Your task to perform on an android device: Open calendar and show me the second week of next month Image 0: 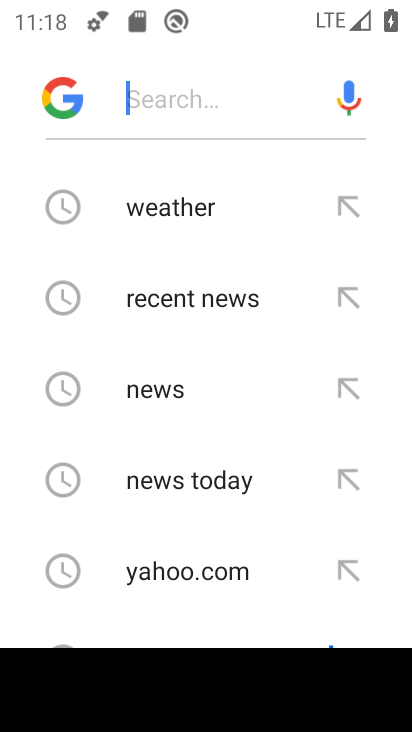
Step 0: press home button
Your task to perform on an android device: Open calendar and show me the second week of next month Image 1: 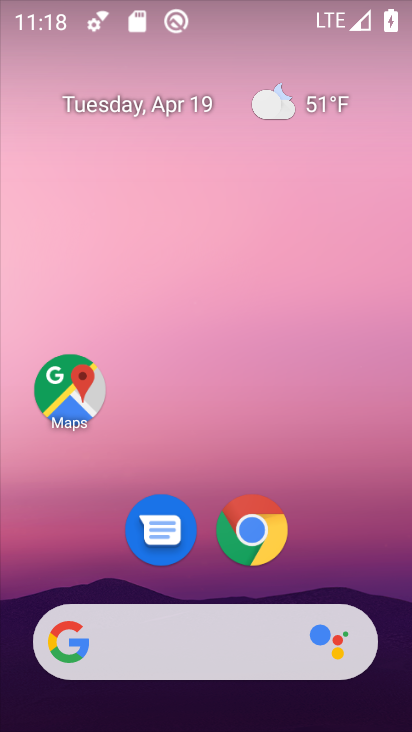
Step 1: drag from (201, 587) to (341, 51)
Your task to perform on an android device: Open calendar and show me the second week of next month Image 2: 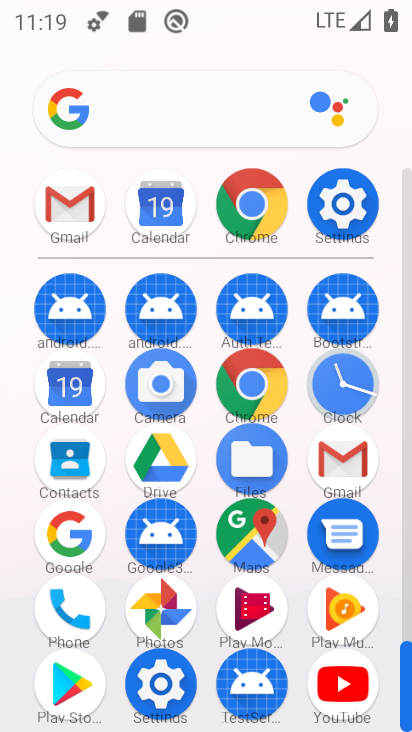
Step 2: click (64, 392)
Your task to perform on an android device: Open calendar and show me the second week of next month Image 3: 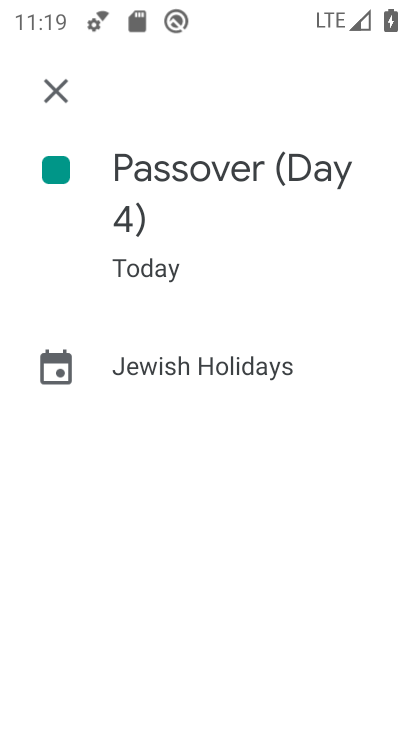
Step 3: click (60, 92)
Your task to perform on an android device: Open calendar and show me the second week of next month Image 4: 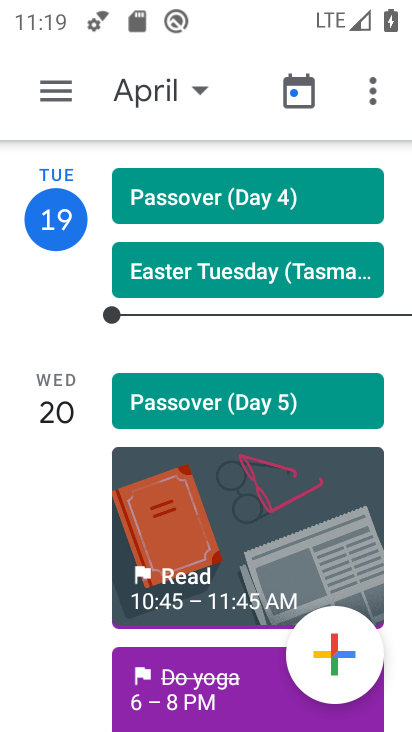
Step 4: click (164, 87)
Your task to perform on an android device: Open calendar and show me the second week of next month Image 5: 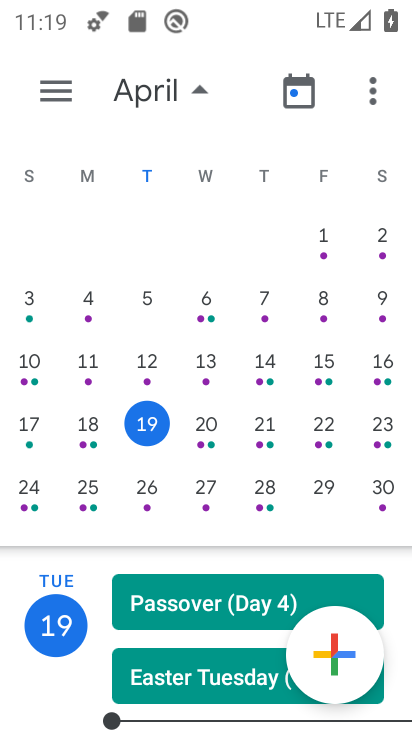
Step 5: drag from (328, 385) to (17, 369)
Your task to perform on an android device: Open calendar and show me the second week of next month Image 6: 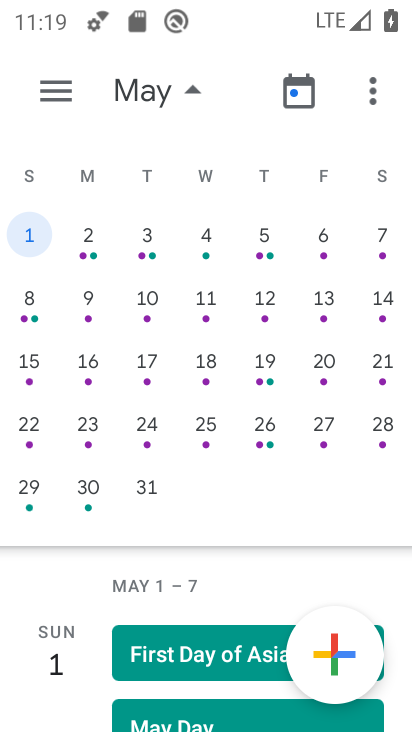
Step 6: click (28, 304)
Your task to perform on an android device: Open calendar and show me the second week of next month Image 7: 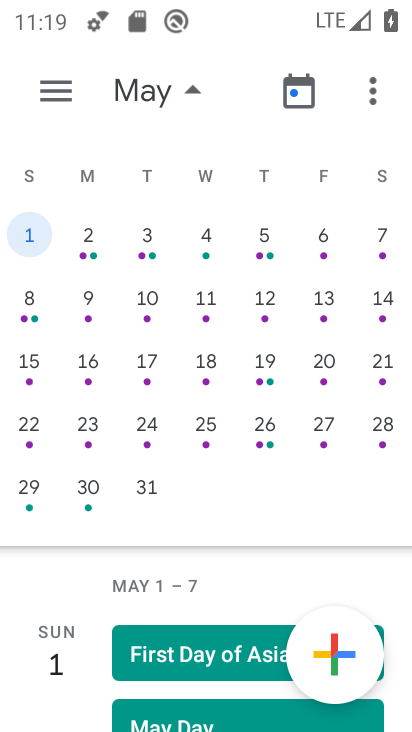
Step 7: click (33, 300)
Your task to perform on an android device: Open calendar and show me the second week of next month Image 8: 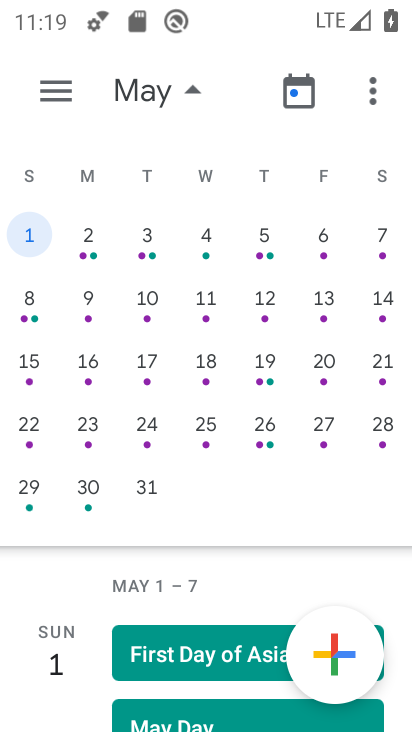
Step 8: click (28, 291)
Your task to perform on an android device: Open calendar and show me the second week of next month Image 9: 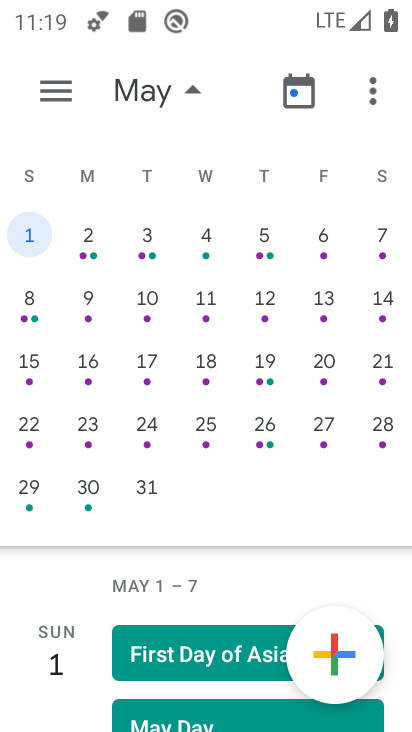
Step 9: click (22, 313)
Your task to perform on an android device: Open calendar and show me the second week of next month Image 10: 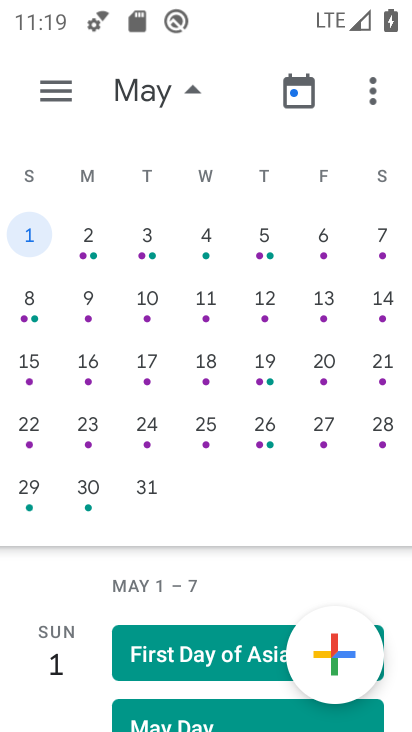
Step 10: click (24, 326)
Your task to perform on an android device: Open calendar and show me the second week of next month Image 11: 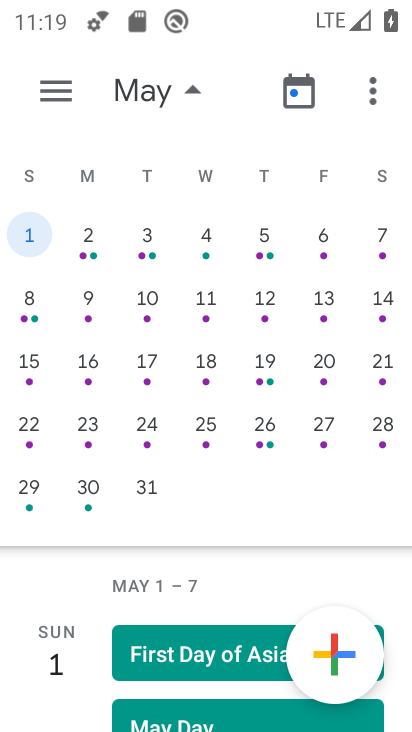
Step 11: click (30, 318)
Your task to perform on an android device: Open calendar and show me the second week of next month Image 12: 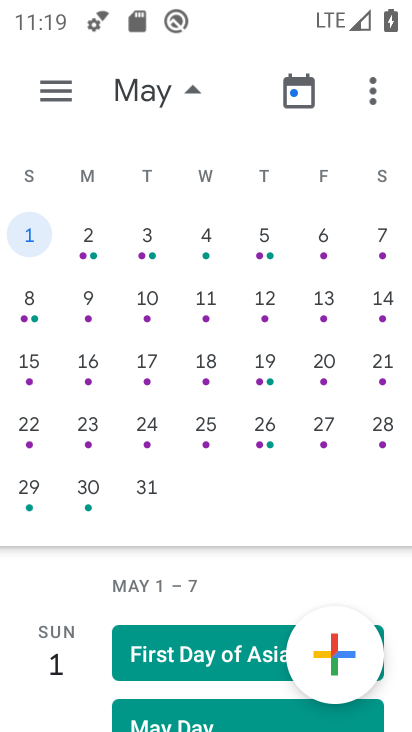
Step 12: click (66, 84)
Your task to perform on an android device: Open calendar and show me the second week of next month Image 13: 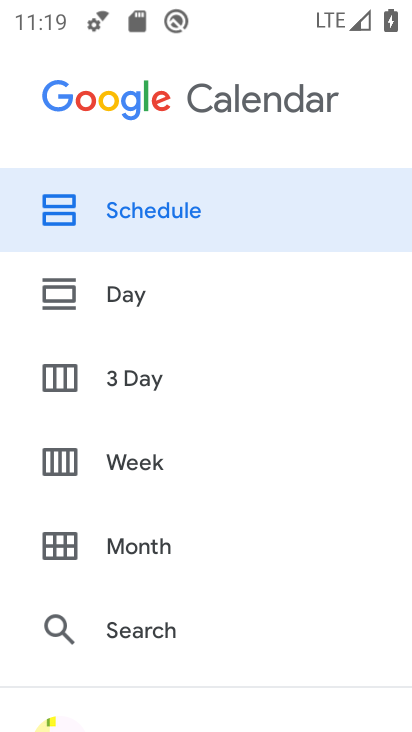
Step 13: click (141, 453)
Your task to perform on an android device: Open calendar and show me the second week of next month Image 14: 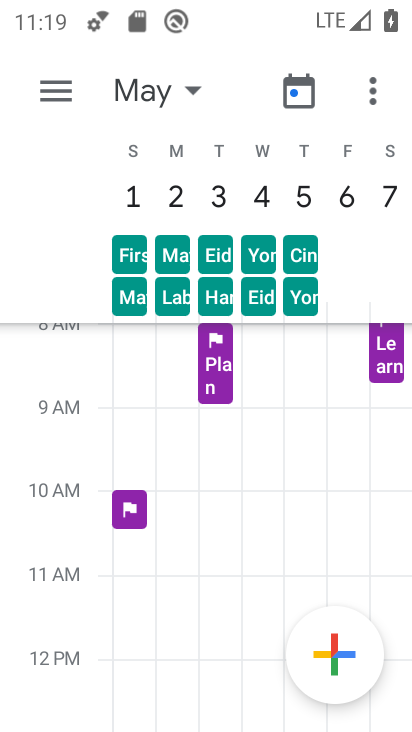
Step 14: drag from (334, 176) to (43, 196)
Your task to perform on an android device: Open calendar and show me the second week of next month Image 15: 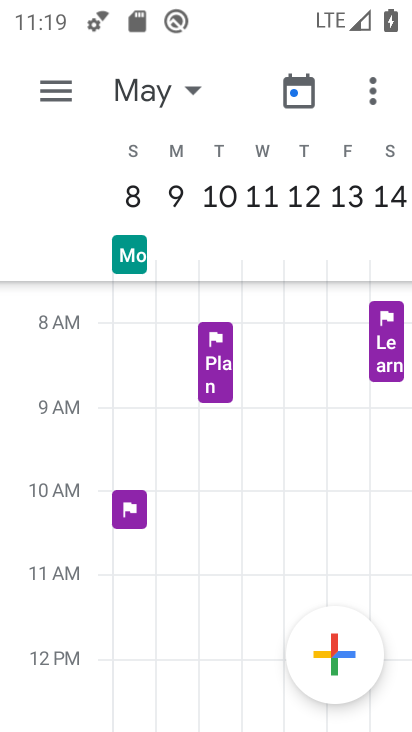
Step 15: click (133, 202)
Your task to perform on an android device: Open calendar and show me the second week of next month Image 16: 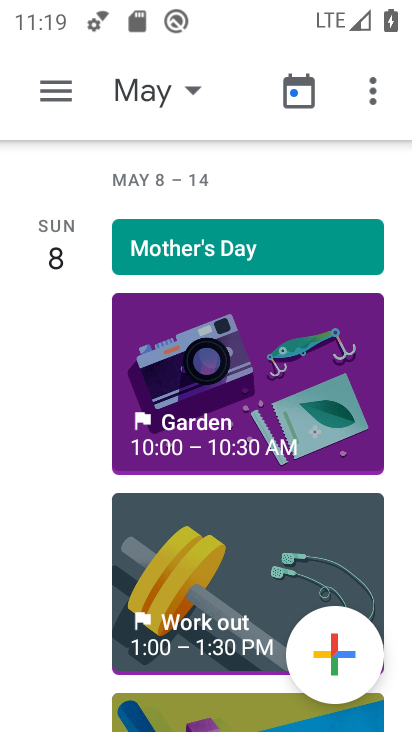
Step 16: click (156, 92)
Your task to perform on an android device: Open calendar and show me the second week of next month Image 17: 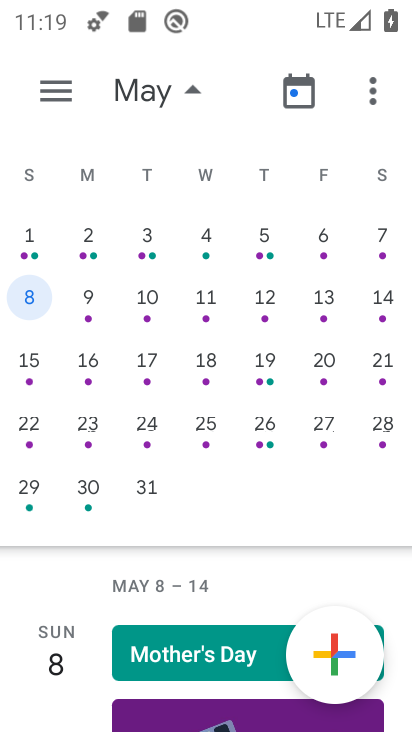
Step 17: click (67, 82)
Your task to perform on an android device: Open calendar and show me the second week of next month Image 18: 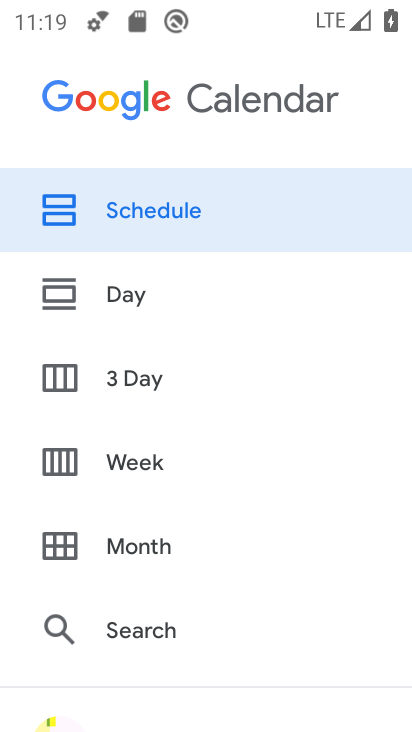
Step 18: click (127, 459)
Your task to perform on an android device: Open calendar and show me the second week of next month Image 19: 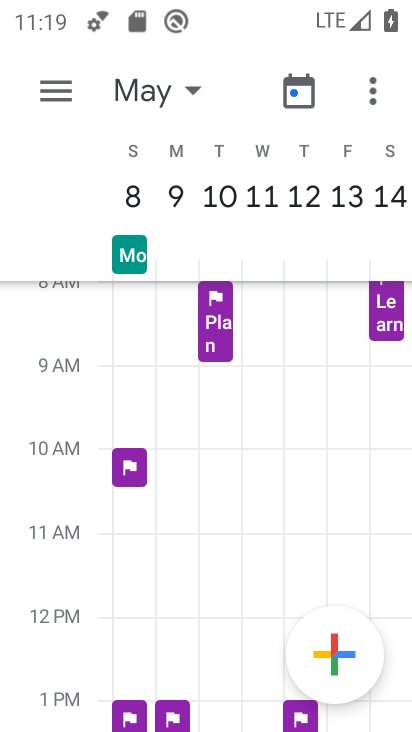
Step 19: task complete